Your task to perform on an android device: turn off data saver in the chrome app Image 0: 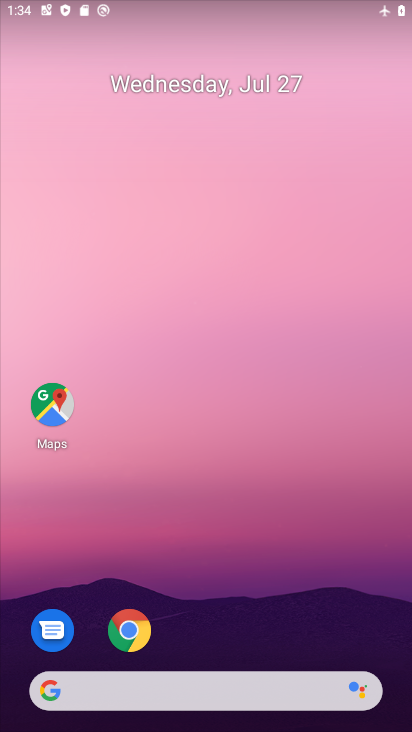
Step 0: drag from (396, 701) to (347, 134)
Your task to perform on an android device: turn off data saver in the chrome app Image 1: 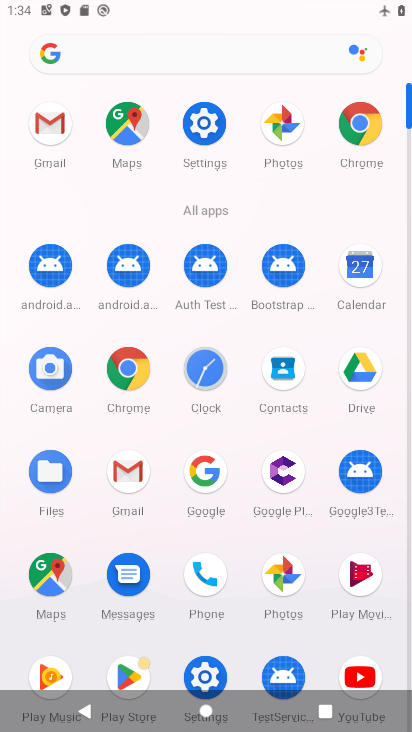
Step 1: click (213, 123)
Your task to perform on an android device: turn off data saver in the chrome app Image 2: 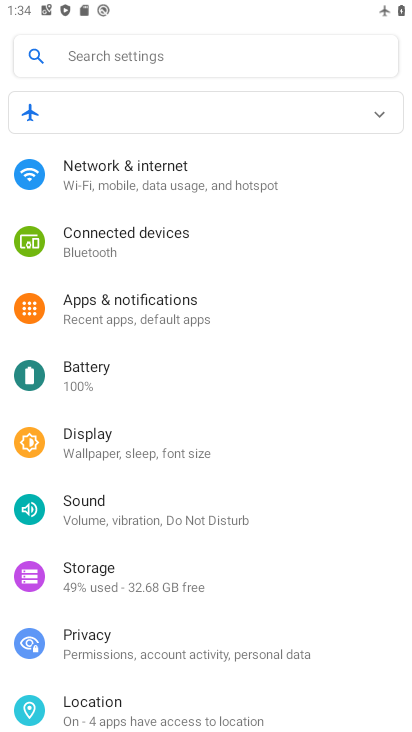
Step 2: click (149, 179)
Your task to perform on an android device: turn off data saver in the chrome app Image 3: 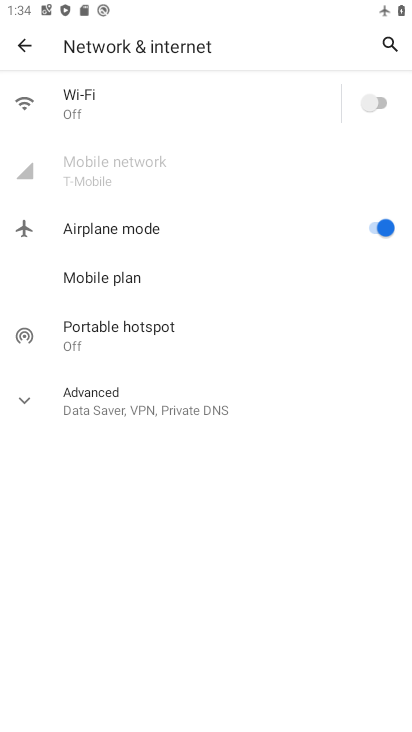
Step 3: click (385, 102)
Your task to perform on an android device: turn off data saver in the chrome app Image 4: 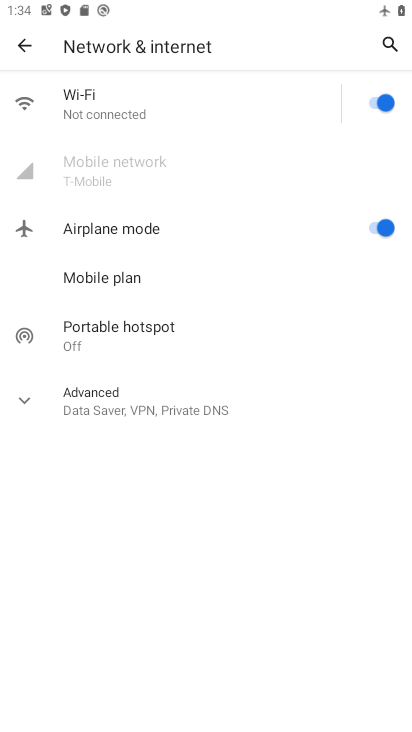
Step 4: click (375, 234)
Your task to perform on an android device: turn off data saver in the chrome app Image 5: 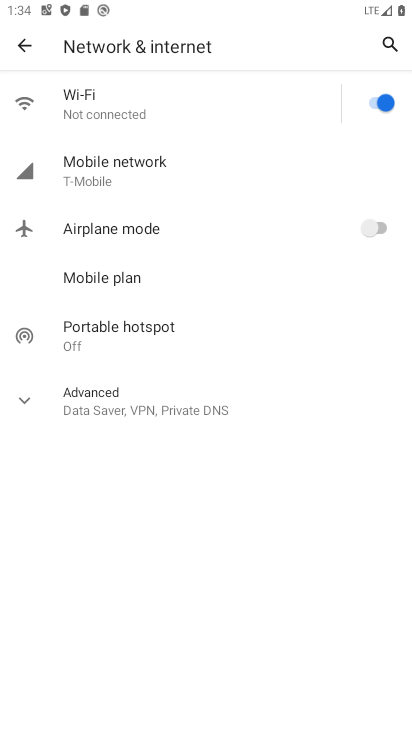
Step 5: click (30, 45)
Your task to perform on an android device: turn off data saver in the chrome app Image 6: 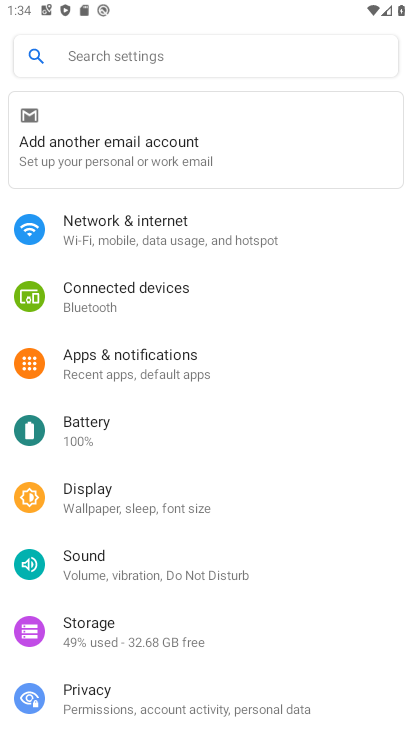
Step 6: press home button
Your task to perform on an android device: turn off data saver in the chrome app Image 7: 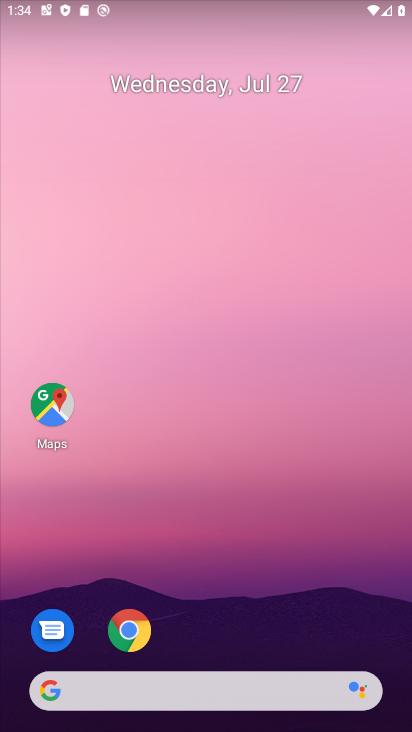
Step 7: click (126, 627)
Your task to perform on an android device: turn off data saver in the chrome app Image 8: 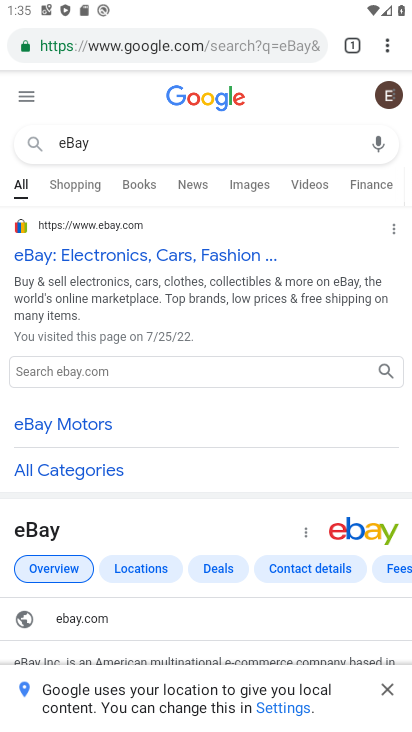
Step 8: task complete